Your task to perform on an android device: Open Amazon Image 0: 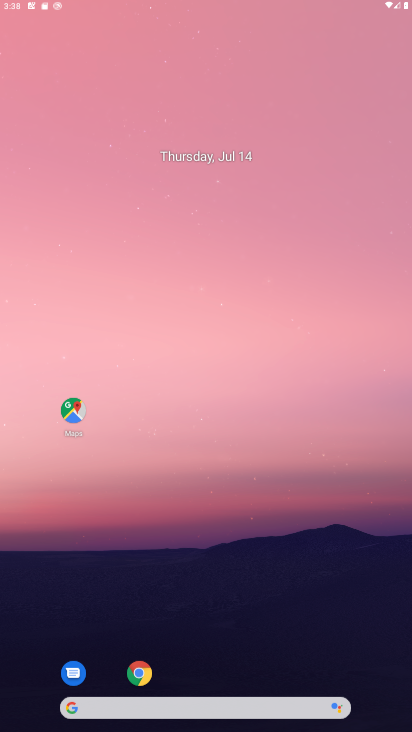
Step 0: press home button
Your task to perform on an android device: Open Amazon Image 1: 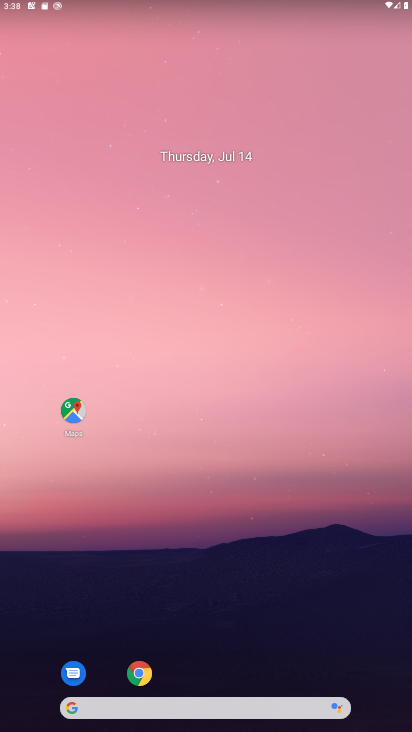
Step 1: drag from (226, 637) to (306, 85)
Your task to perform on an android device: Open Amazon Image 2: 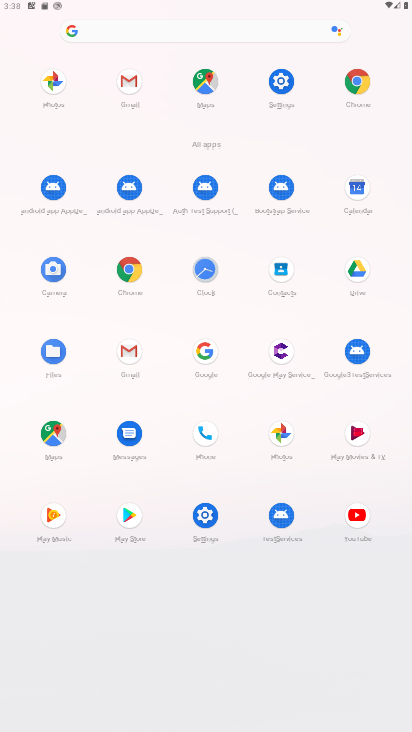
Step 2: click (282, 77)
Your task to perform on an android device: Open Amazon Image 3: 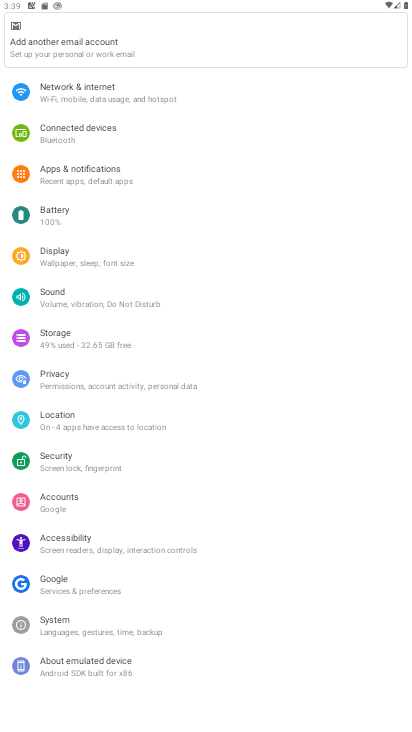
Step 3: press home button
Your task to perform on an android device: Open Amazon Image 4: 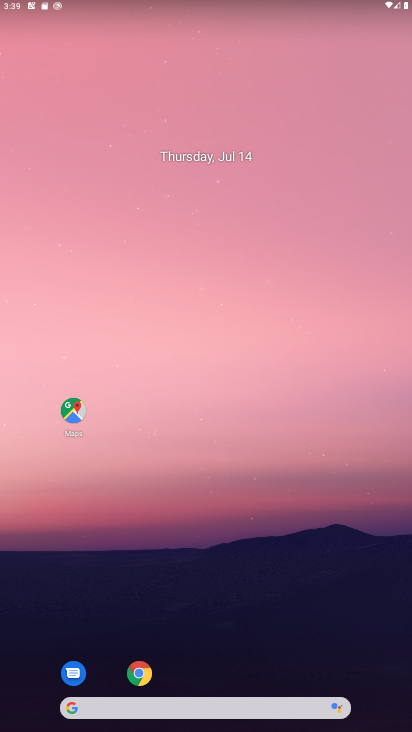
Step 4: click (140, 674)
Your task to perform on an android device: Open Amazon Image 5: 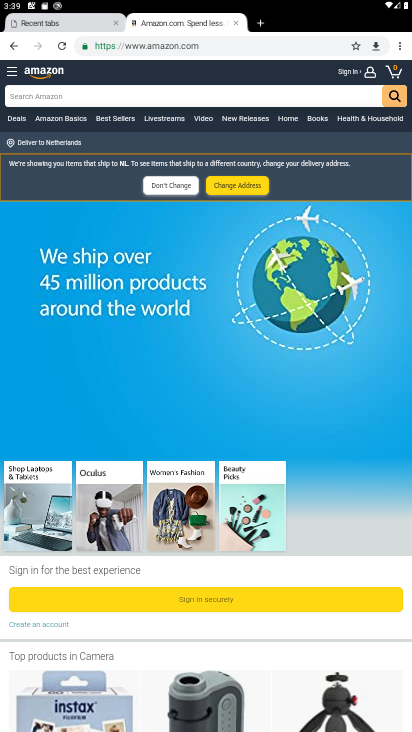
Step 5: task complete